Your task to perform on an android device: toggle improve location accuracy Image 0: 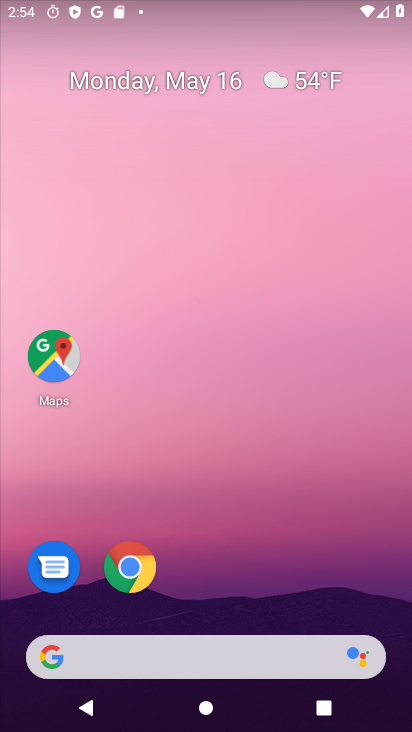
Step 0: drag from (265, 550) to (220, 76)
Your task to perform on an android device: toggle improve location accuracy Image 1: 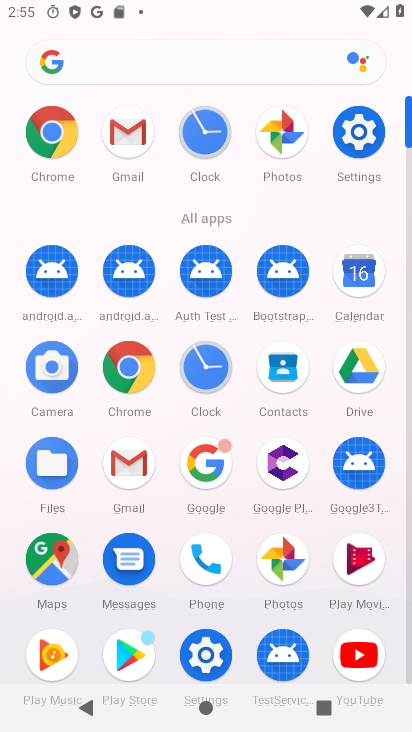
Step 1: click (360, 133)
Your task to perform on an android device: toggle improve location accuracy Image 2: 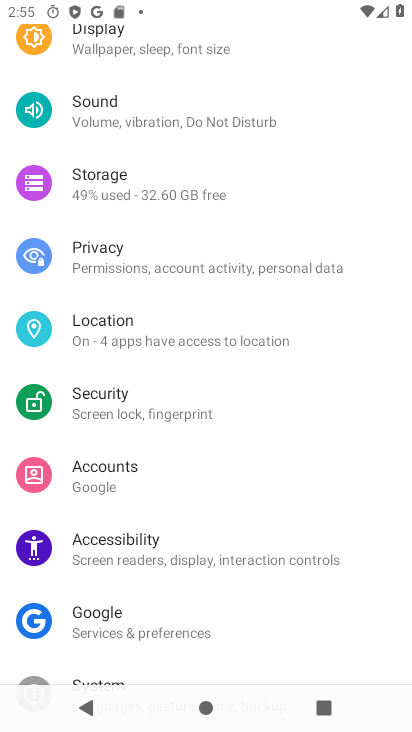
Step 2: drag from (193, 210) to (169, 290)
Your task to perform on an android device: toggle improve location accuracy Image 3: 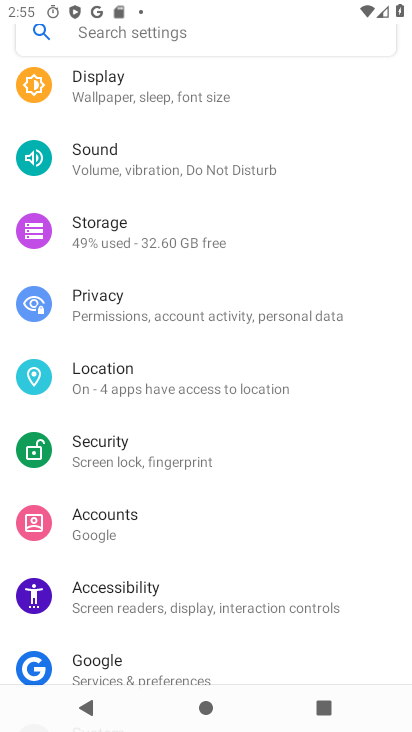
Step 3: click (131, 376)
Your task to perform on an android device: toggle improve location accuracy Image 4: 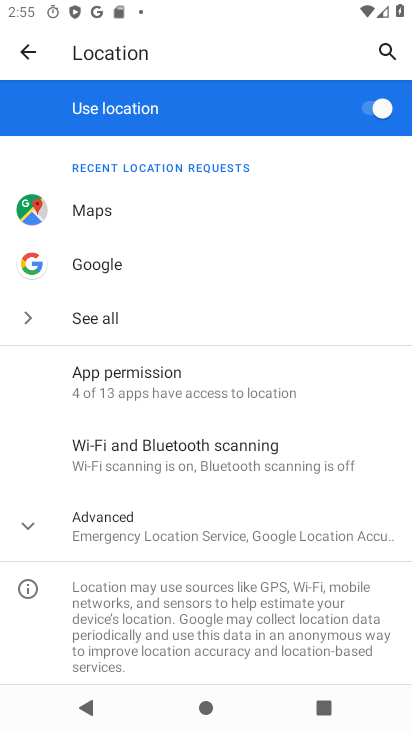
Step 4: click (158, 530)
Your task to perform on an android device: toggle improve location accuracy Image 5: 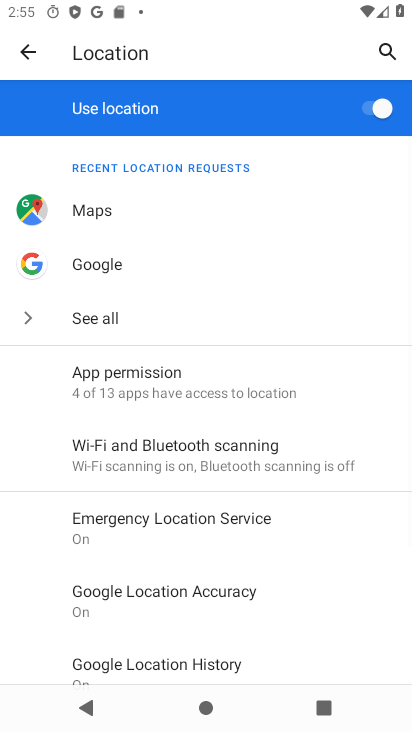
Step 5: drag from (148, 548) to (218, 430)
Your task to perform on an android device: toggle improve location accuracy Image 6: 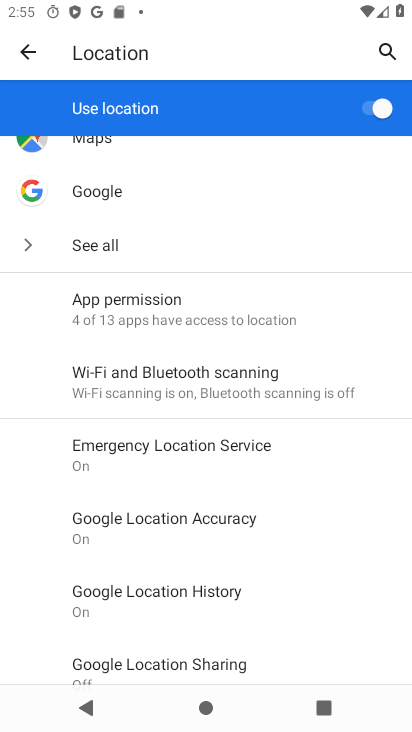
Step 6: click (168, 522)
Your task to perform on an android device: toggle improve location accuracy Image 7: 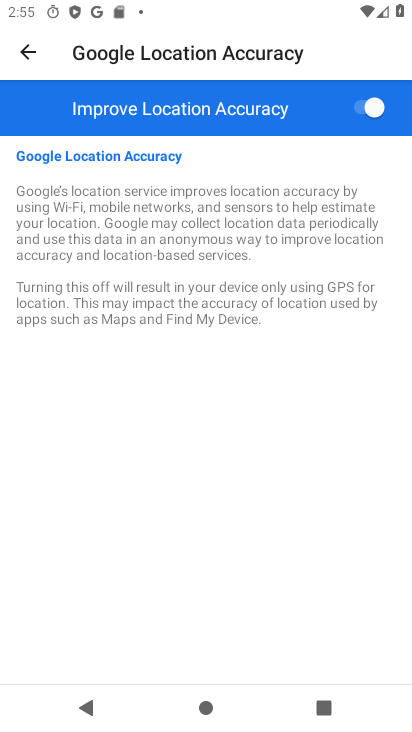
Step 7: click (370, 107)
Your task to perform on an android device: toggle improve location accuracy Image 8: 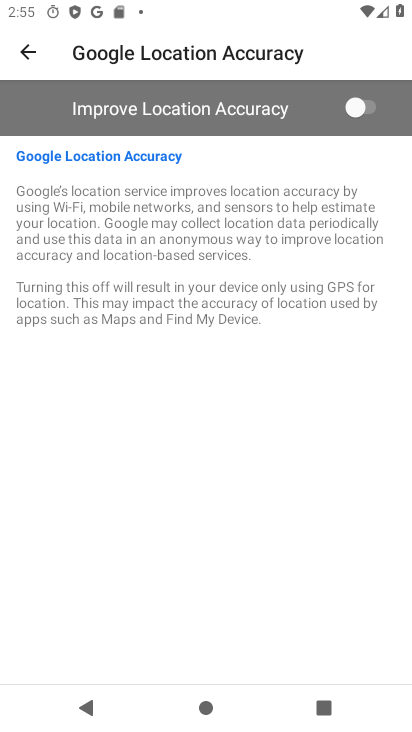
Step 8: task complete